Your task to perform on an android device: star an email in the gmail app Image 0: 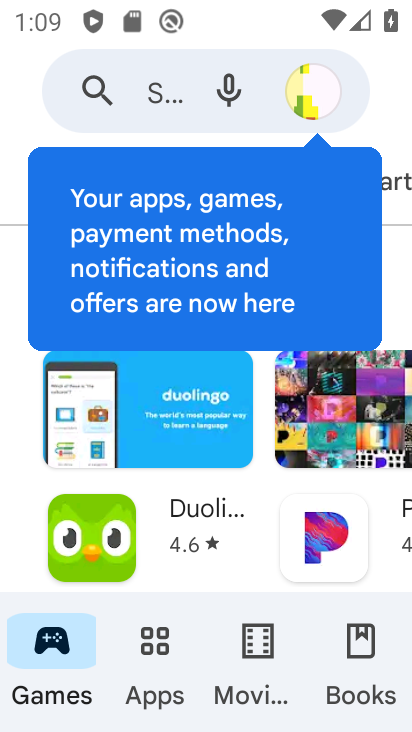
Step 0: press home button
Your task to perform on an android device: star an email in the gmail app Image 1: 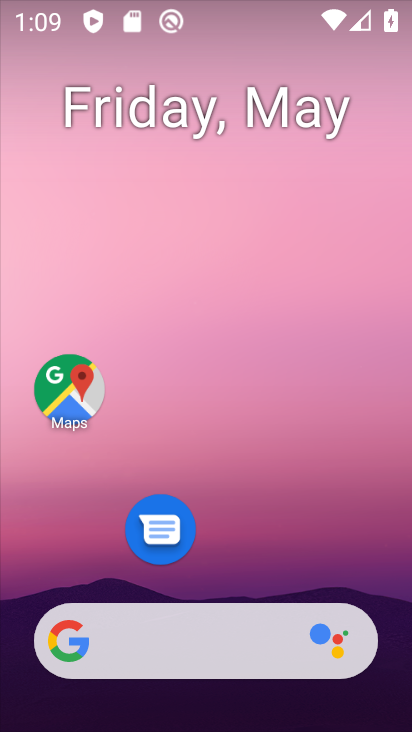
Step 1: click (289, 257)
Your task to perform on an android device: star an email in the gmail app Image 2: 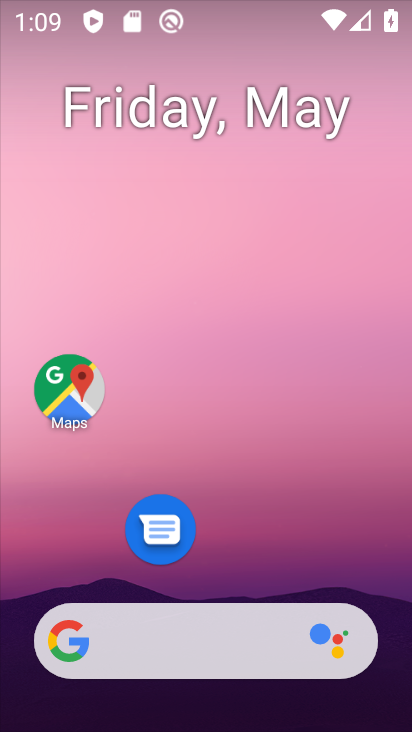
Step 2: drag from (204, 594) to (270, 93)
Your task to perform on an android device: star an email in the gmail app Image 3: 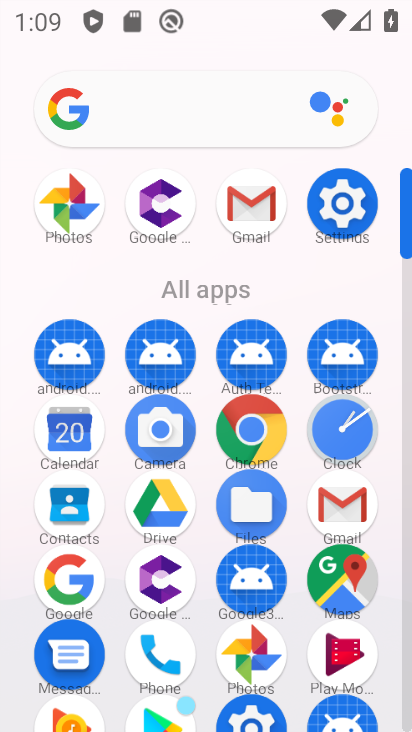
Step 3: click (316, 480)
Your task to perform on an android device: star an email in the gmail app Image 4: 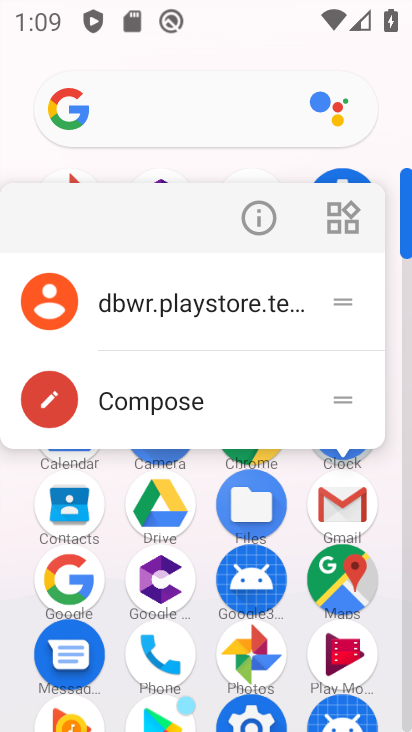
Step 4: click (254, 226)
Your task to perform on an android device: star an email in the gmail app Image 5: 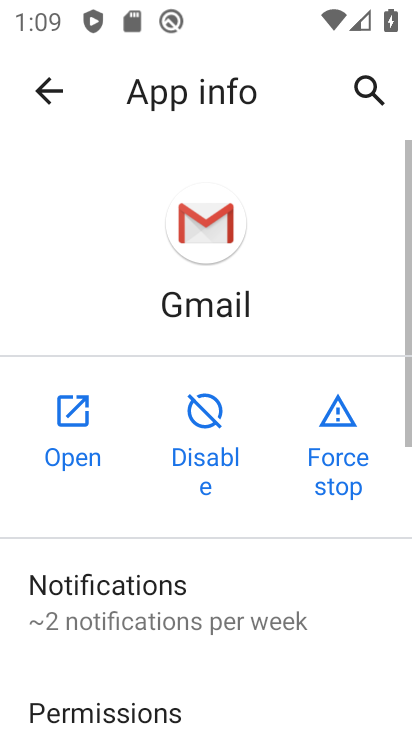
Step 5: click (65, 396)
Your task to perform on an android device: star an email in the gmail app Image 6: 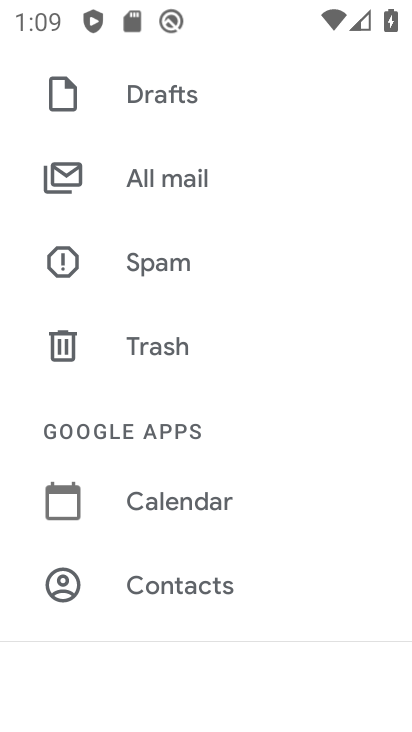
Step 6: task complete